Your task to perform on an android device: visit the assistant section in the google photos Image 0: 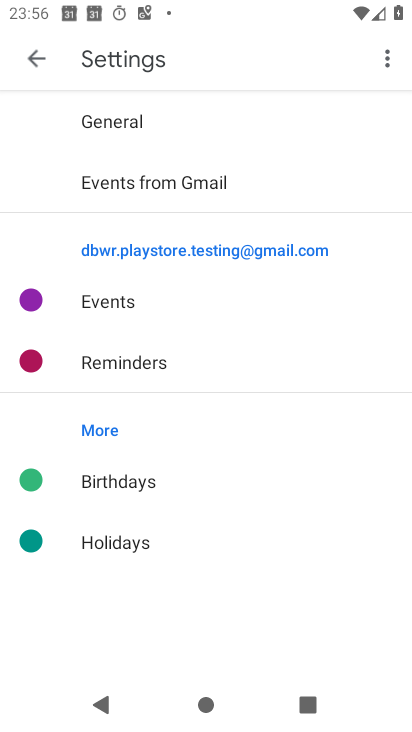
Step 0: press home button
Your task to perform on an android device: visit the assistant section in the google photos Image 1: 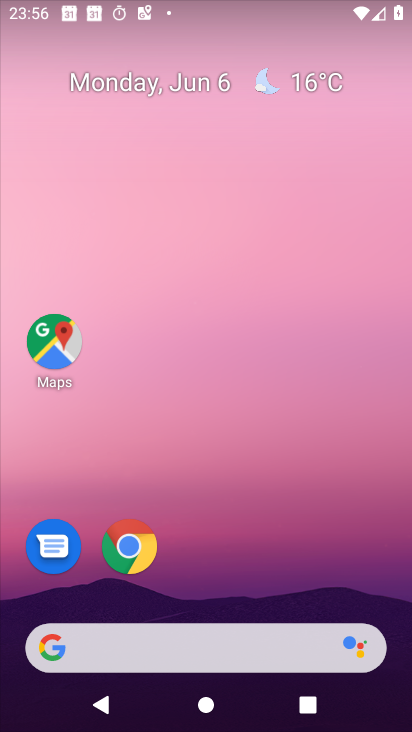
Step 1: drag from (217, 480) to (281, 159)
Your task to perform on an android device: visit the assistant section in the google photos Image 2: 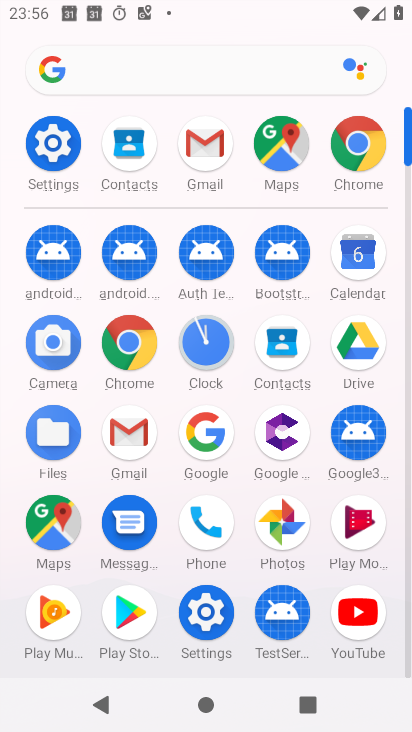
Step 2: click (279, 527)
Your task to perform on an android device: visit the assistant section in the google photos Image 3: 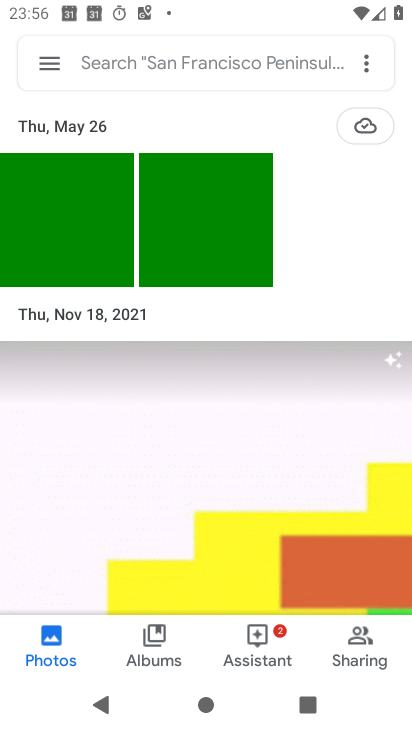
Step 3: click (256, 643)
Your task to perform on an android device: visit the assistant section in the google photos Image 4: 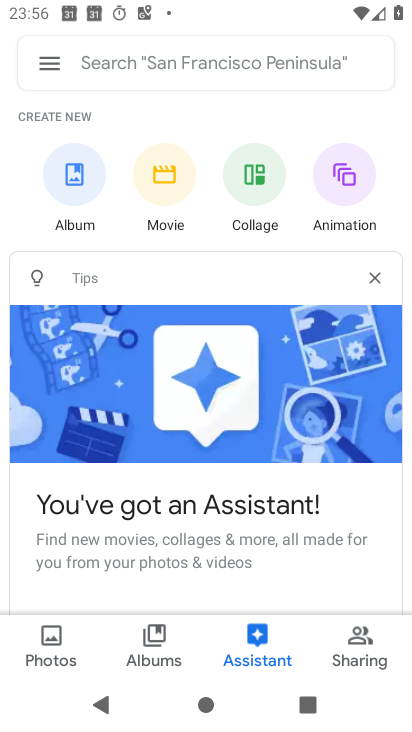
Step 4: task complete